Your task to perform on an android device: turn off notifications in google photos Image 0: 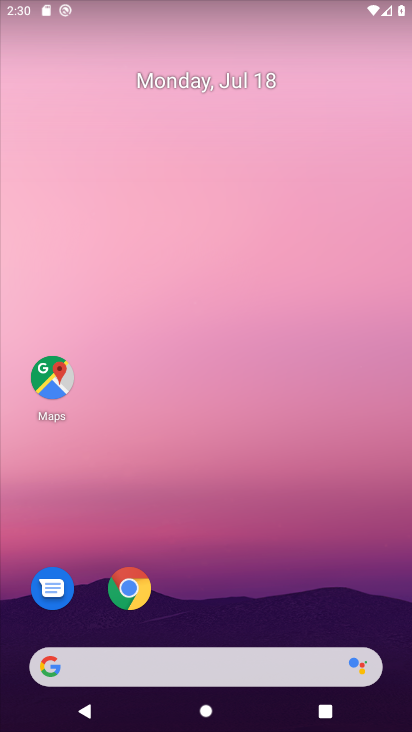
Step 0: drag from (352, 613) to (308, 111)
Your task to perform on an android device: turn off notifications in google photos Image 1: 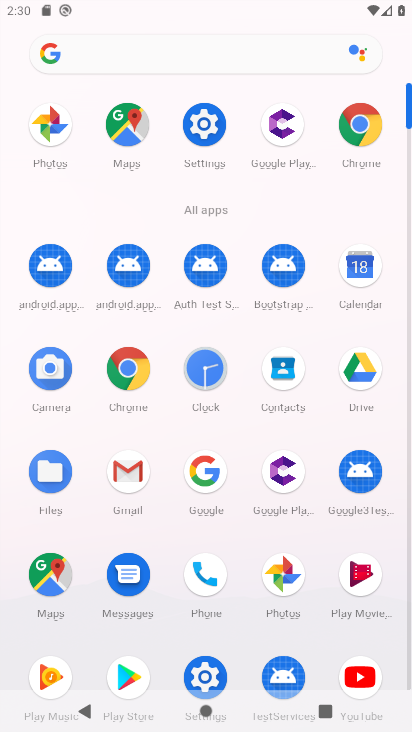
Step 1: click (283, 571)
Your task to perform on an android device: turn off notifications in google photos Image 2: 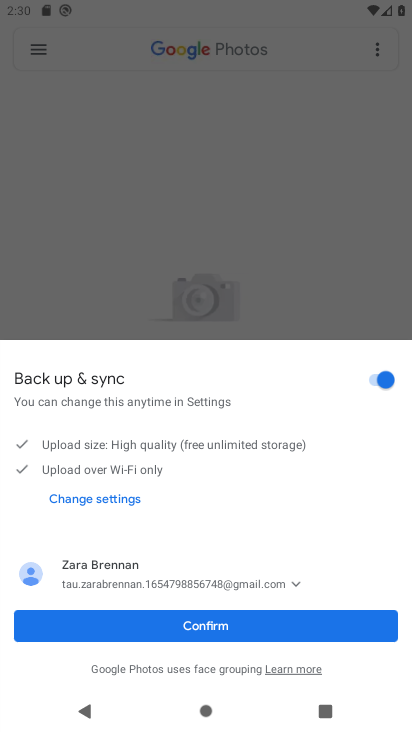
Step 2: click (224, 634)
Your task to perform on an android device: turn off notifications in google photos Image 3: 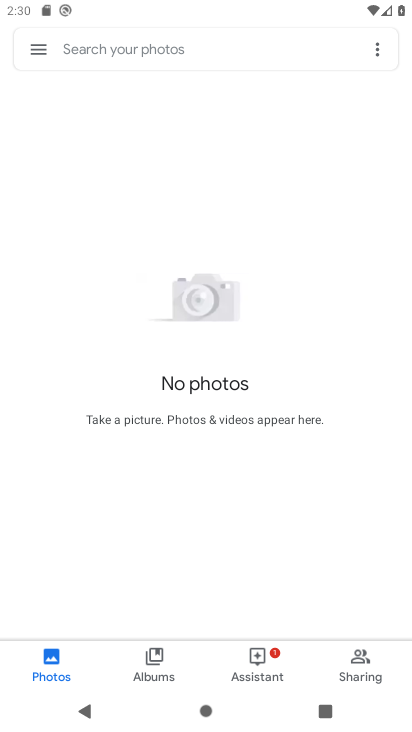
Step 3: click (37, 49)
Your task to perform on an android device: turn off notifications in google photos Image 4: 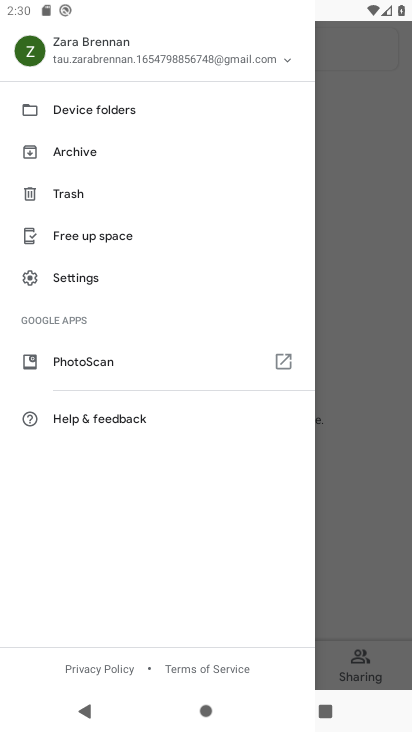
Step 4: click (93, 272)
Your task to perform on an android device: turn off notifications in google photos Image 5: 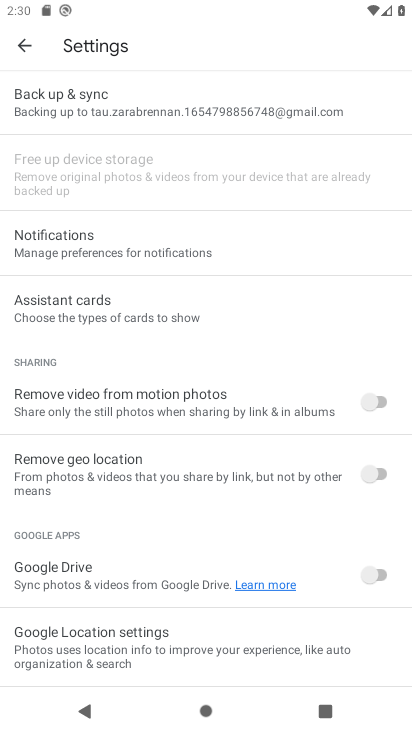
Step 5: click (120, 256)
Your task to perform on an android device: turn off notifications in google photos Image 6: 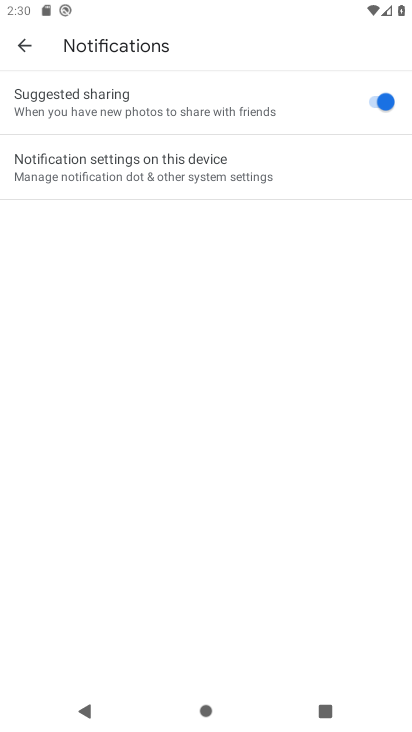
Step 6: click (144, 177)
Your task to perform on an android device: turn off notifications in google photos Image 7: 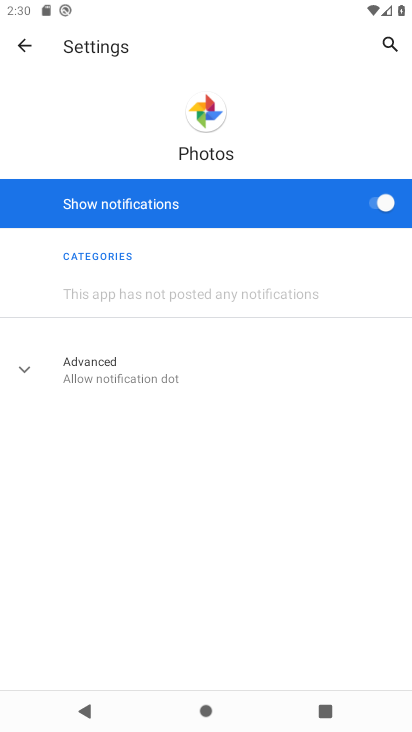
Step 7: click (355, 207)
Your task to perform on an android device: turn off notifications in google photos Image 8: 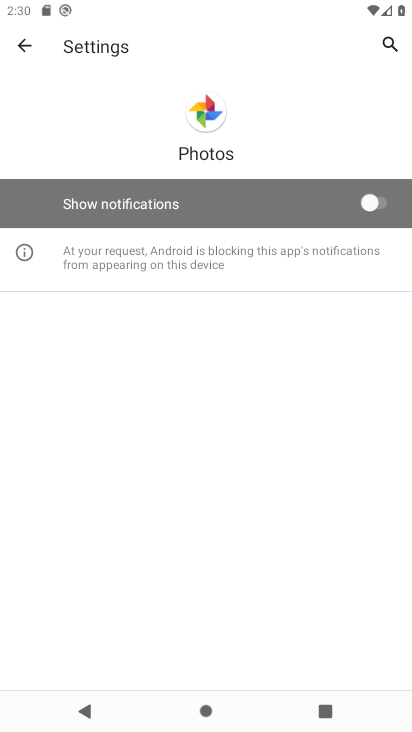
Step 8: task complete